Your task to perform on an android device: Open calendar and show me the second week of next month Image 0: 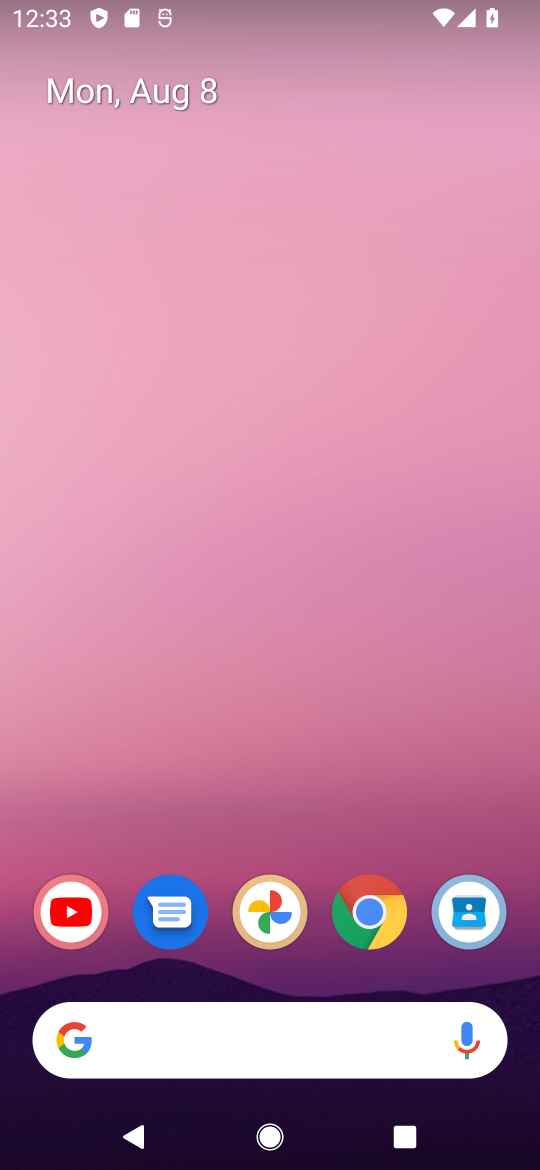
Step 0: drag from (267, 944) to (375, 24)
Your task to perform on an android device: Open calendar and show me the second week of next month Image 1: 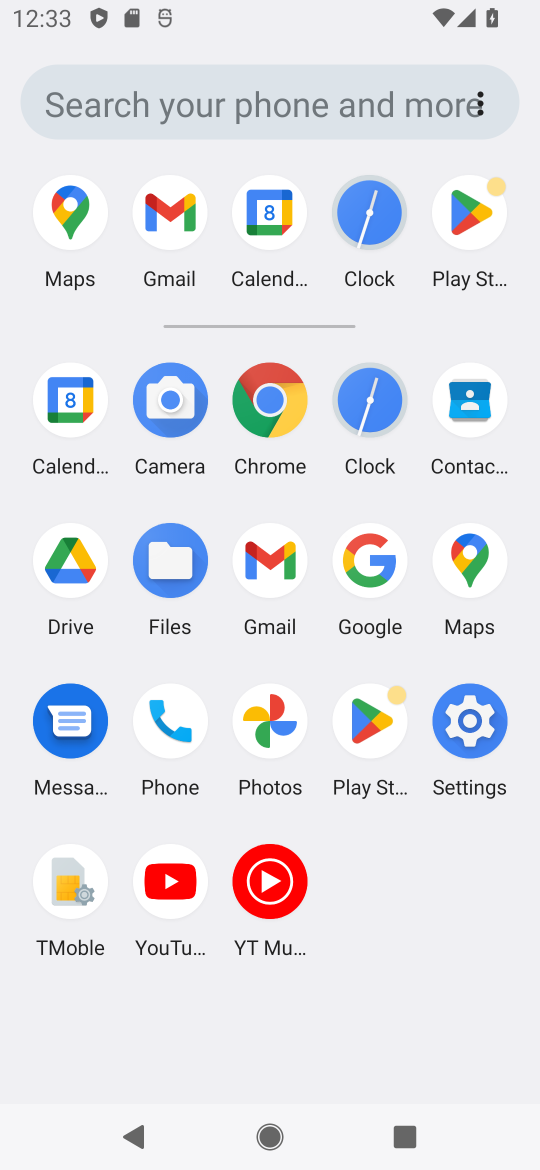
Step 1: click (72, 409)
Your task to perform on an android device: Open calendar and show me the second week of next month Image 2: 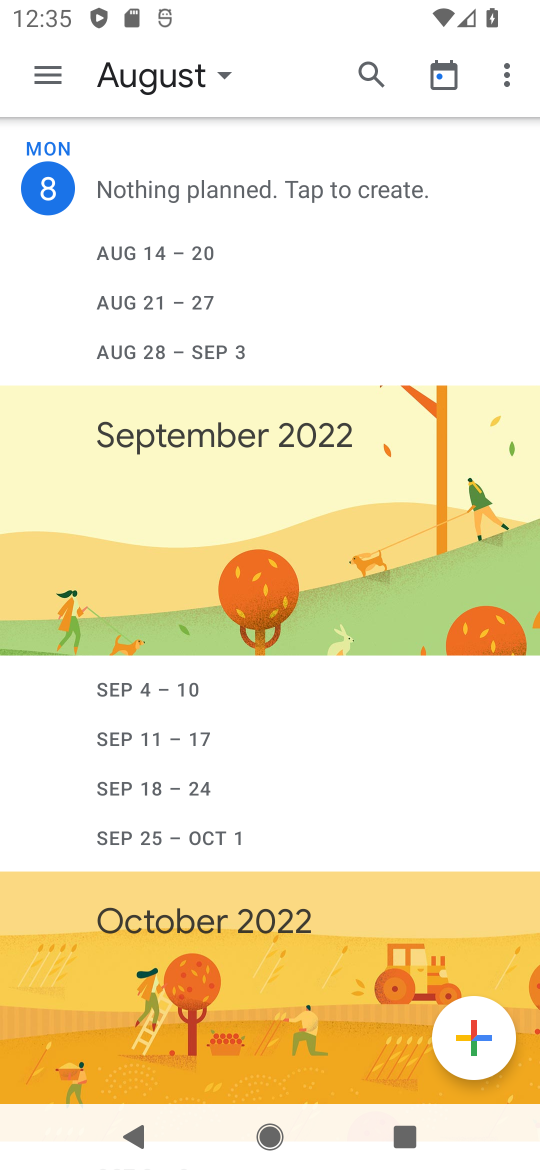
Step 2: click (196, 71)
Your task to perform on an android device: Open calendar and show me the second week of next month Image 3: 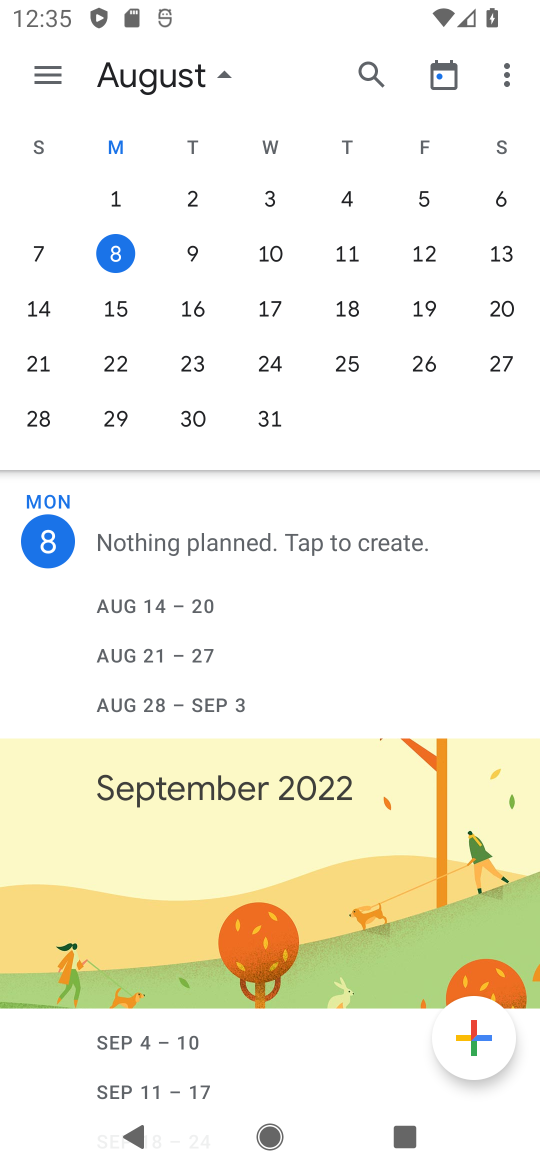
Step 3: drag from (507, 313) to (10, 291)
Your task to perform on an android device: Open calendar and show me the second week of next month Image 4: 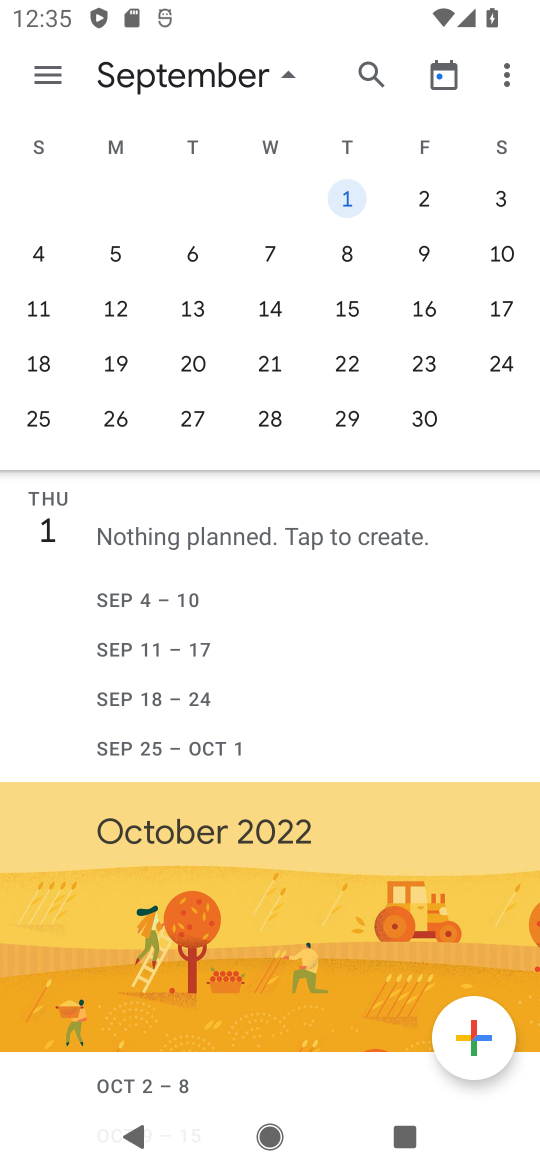
Step 4: click (118, 245)
Your task to perform on an android device: Open calendar and show me the second week of next month Image 5: 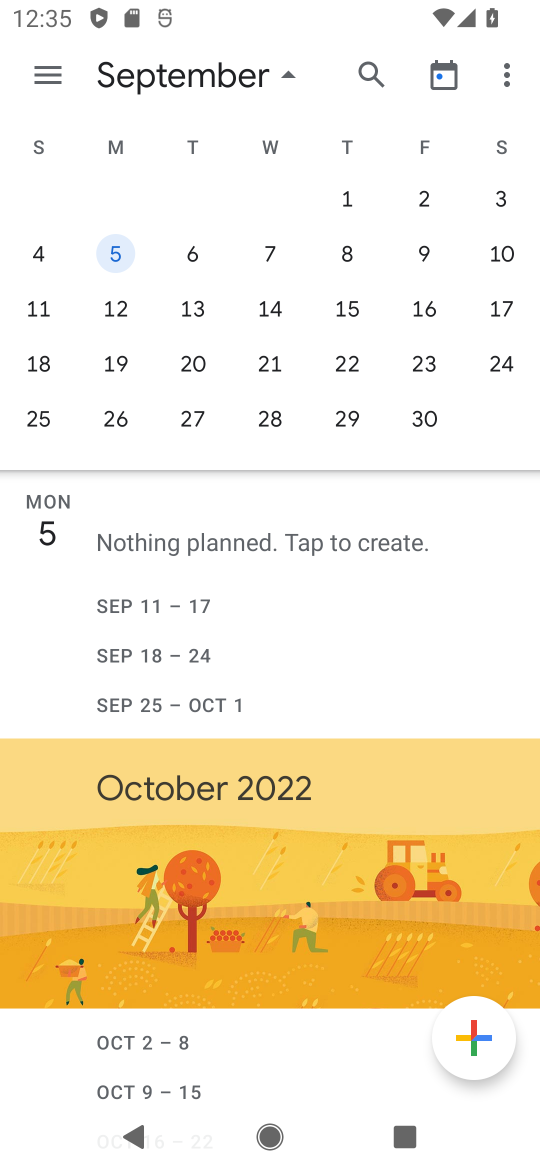
Step 5: task complete